Your task to perform on an android device: Go to sound settings Image 0: 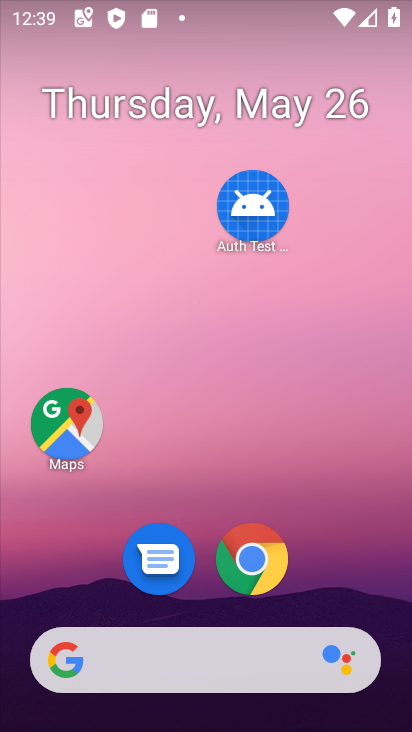
Step 0: drag from (345, 609) to (374, 130)
Your task to perform on an android device: Go to sound settings Image 1: 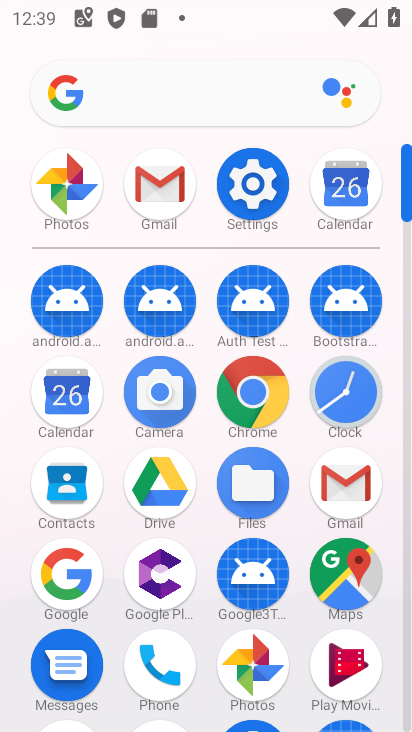
Step 1: click (257, 200)
Your task to perform on an android device: Go to sound settings Image 2: 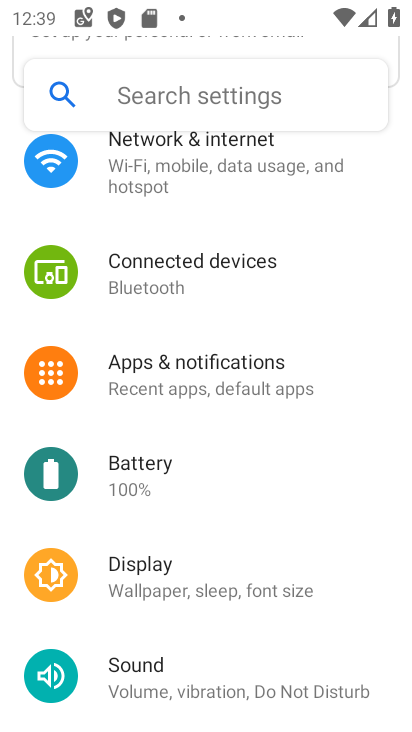
Step 2: click (240, 683)
Your task to perform on an android device: Go to sound settings Image 3: 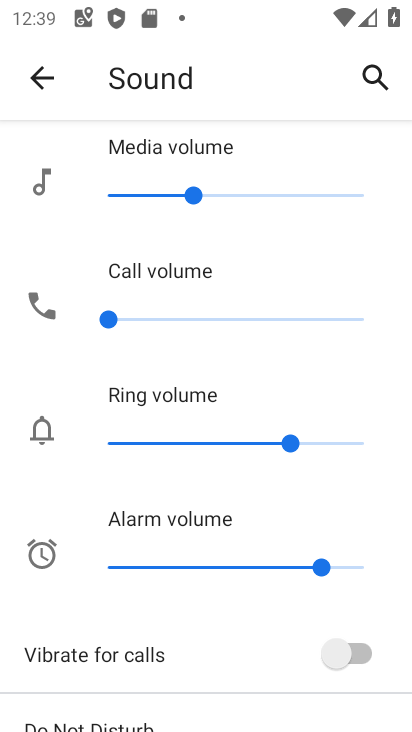
Step 3: task complete